Your task to perform on an android device: Go to privacy settings Image 0: 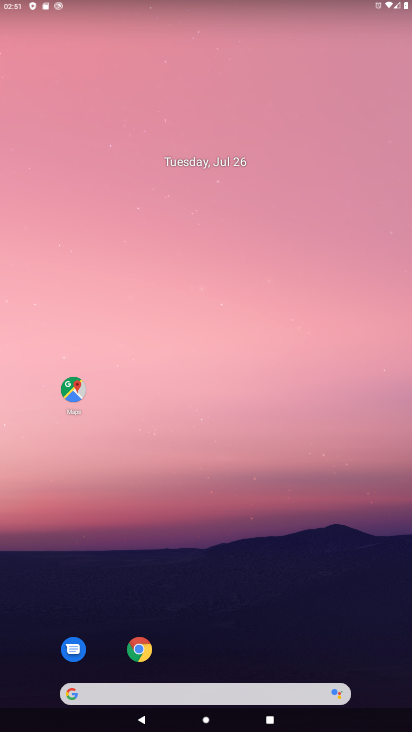
Step 0: drag from (185, 687) to (233, 6)
Your task to perform on an android device: Go to privacy settings Image 1: 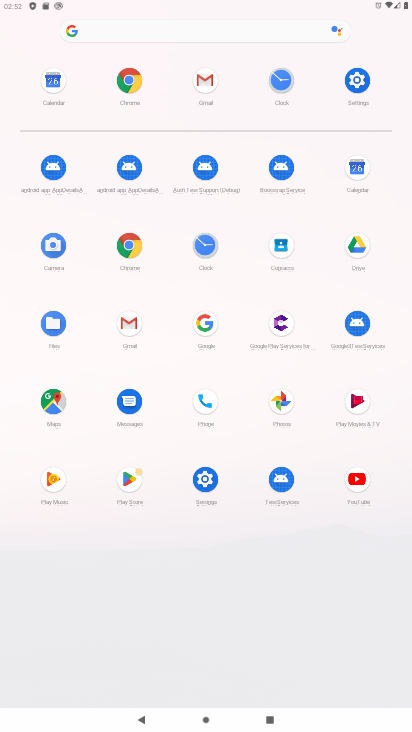
Step 1: click (357, 80)
Your task to perform on an android device: Go to privacy settings Image 2: 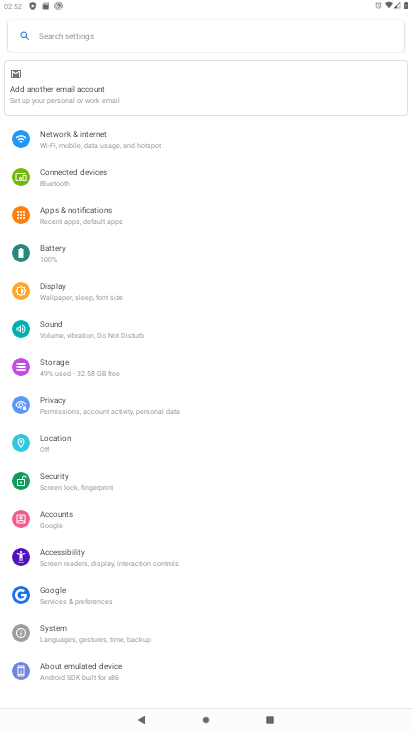
Step 2: click (68, 407)
Your task to perform on an android device: Go to privacy settings Image 3: 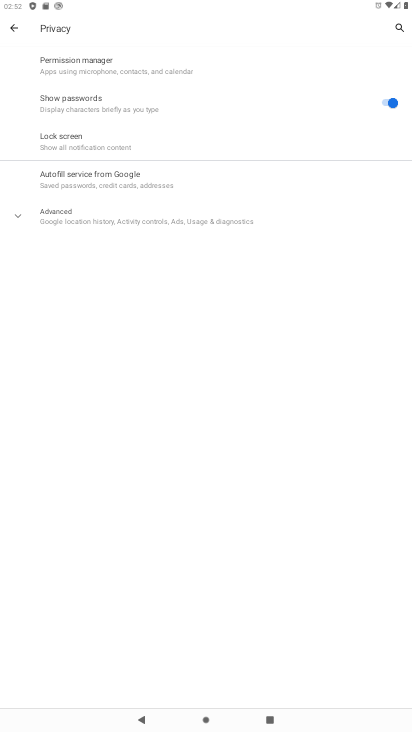
Step 3: task complete